Your task to perform on an android device: turn on sleep mode Image 0: 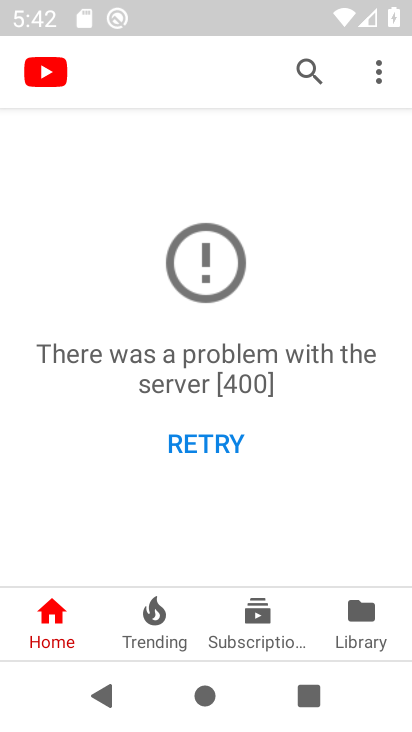
Step 0: press home button
Your task to perform on an android device: turn on sleep mode Image 1: 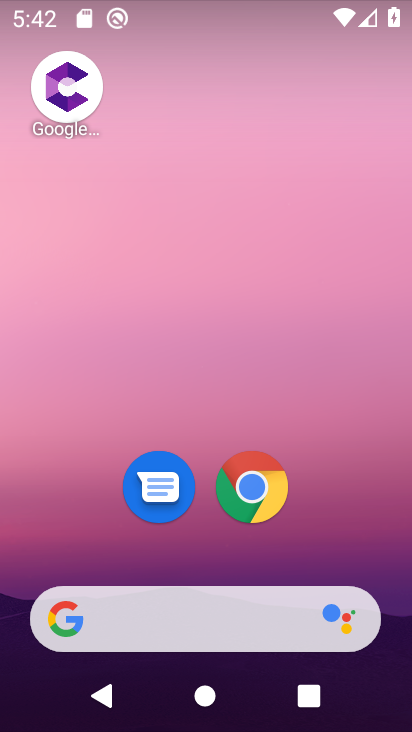
Step 1: drag from (220, 556) to (408, 185)
Your task to perform on an android device: turn on sleep mode Image 2: 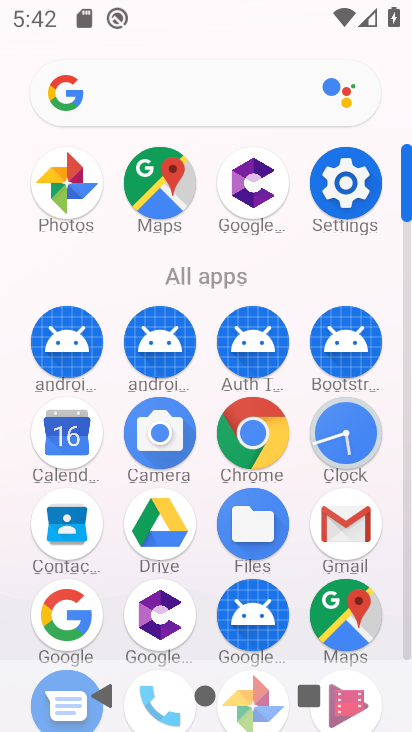
Step 2: click (340, 179)
Your task to perform on an android device: turn on sleep mode Image 3: 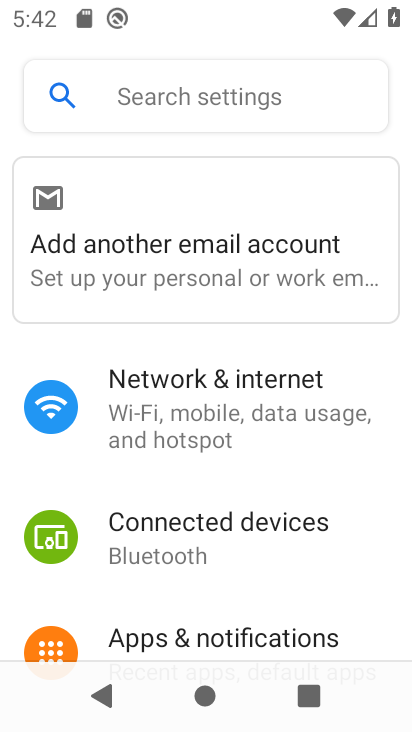
Step 3: drag from (214, 617) to (273, 164)
Your task to perform on an android device: turn on sleep mode Image 4: 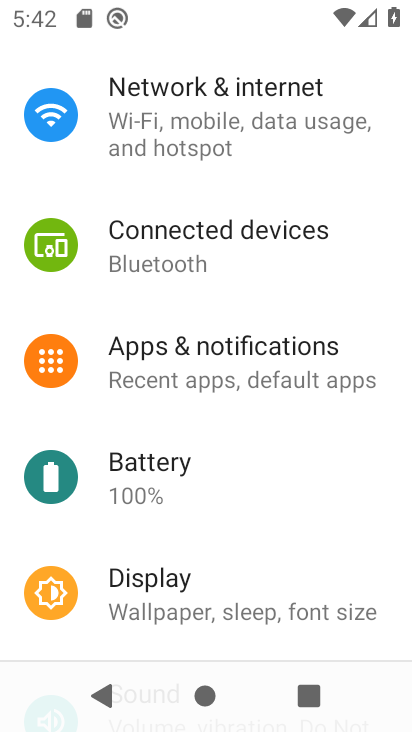
Step 4: click (198, 574)
Your task to perform on an android device: turn on sleep mode Image 5: 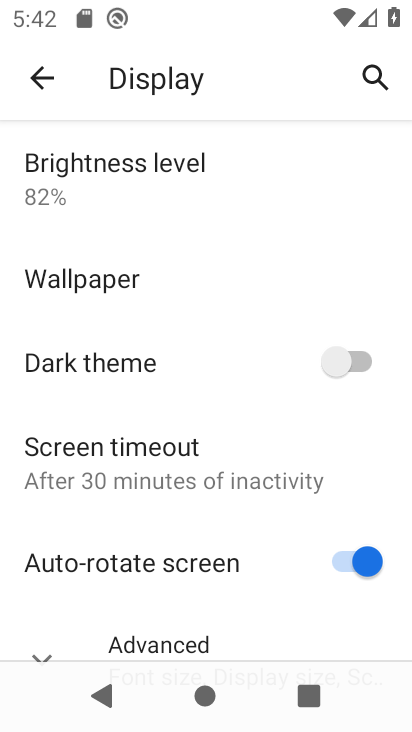
Step 5: drag from (152, 632) to (141, 270)
Your task to perform on an android device: turn on sleep mode Image 6: 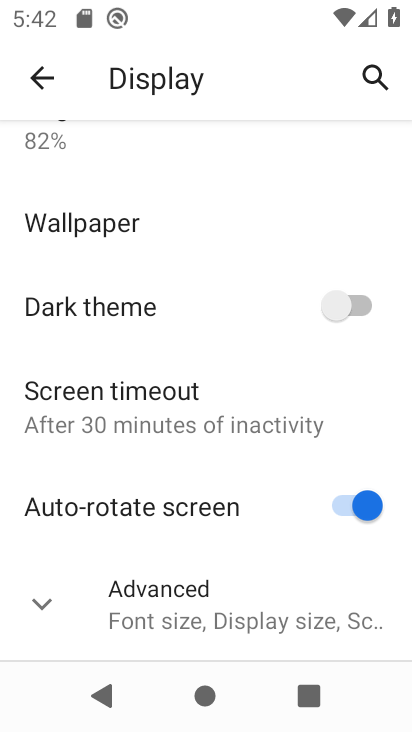
Step 6: click (46, 596)
Your task to perform on an android device: turn on sleep mode Image 7: 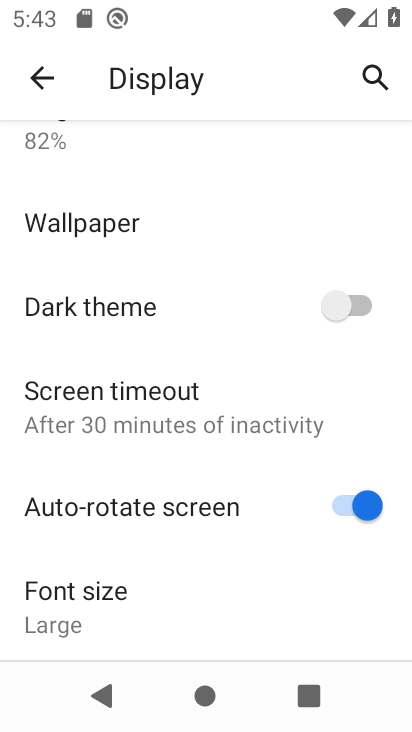
Step 7: task complete